Your task to perform on an android device: stop showing notifications on the lock screen Image 0: 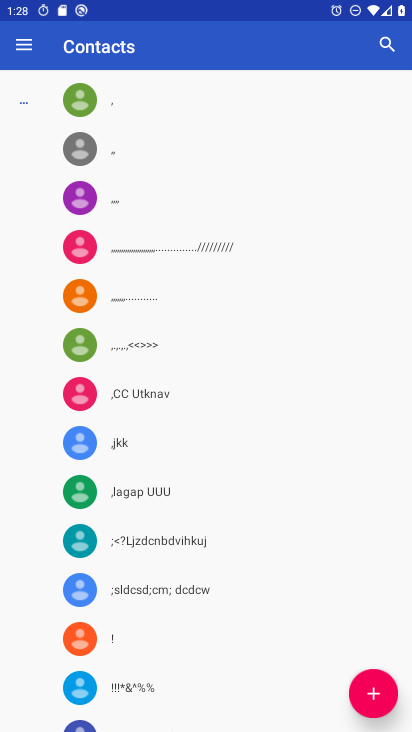
Step 0: drag from (228, 589) to (267, 202)
Your task to perform on an android device: stop showing notifications on the lock screen Image 1: 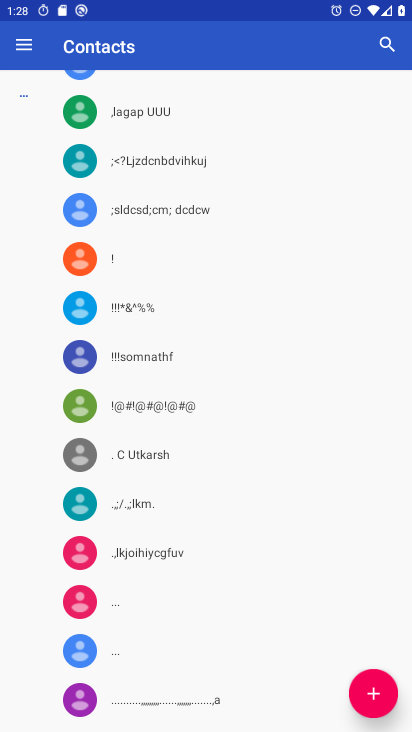
Step 1: drag from (143, 531) to (211, 311)
Your task to perform on an android device: stop showing notifications on the lock screen Image 2: 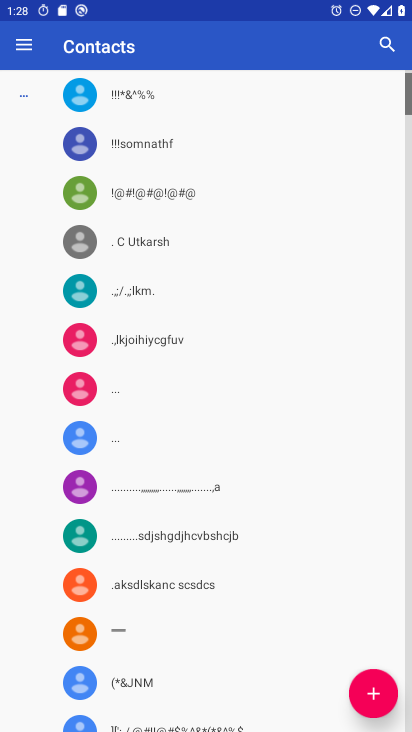
Step 2: press home button
Your task to perform on an android device: stop showing notifications on the lock screen Image 3: 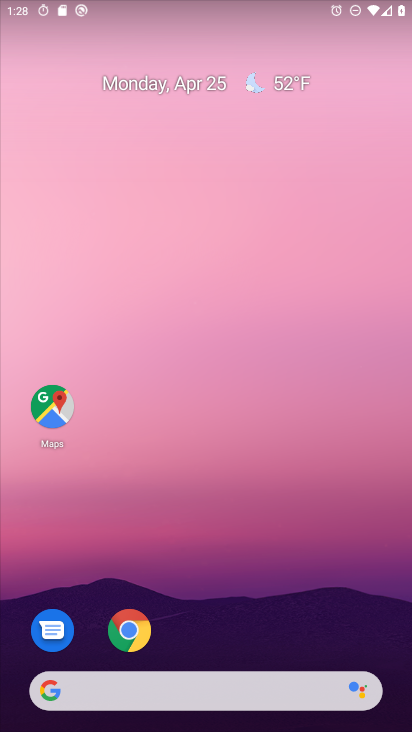
Step 3: drag from (175, 614) to (185, 145)
Your task to perform on an android device: stop showing notifications on the lock screen Image 4: 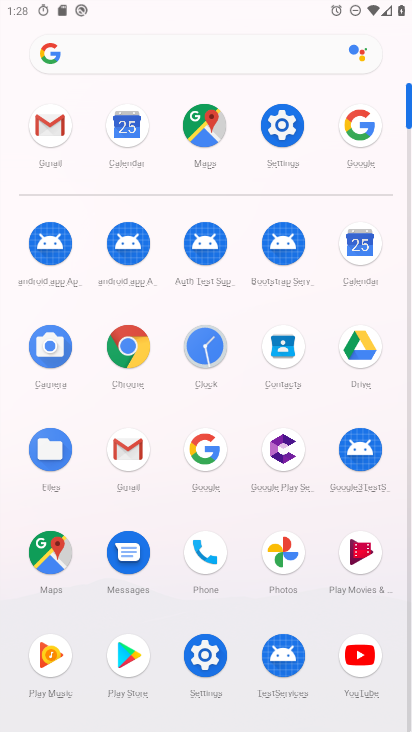
Step 4: click (283, 126)
Your task to perform on an android device: stop showing notifications on the lock screen Image 5: 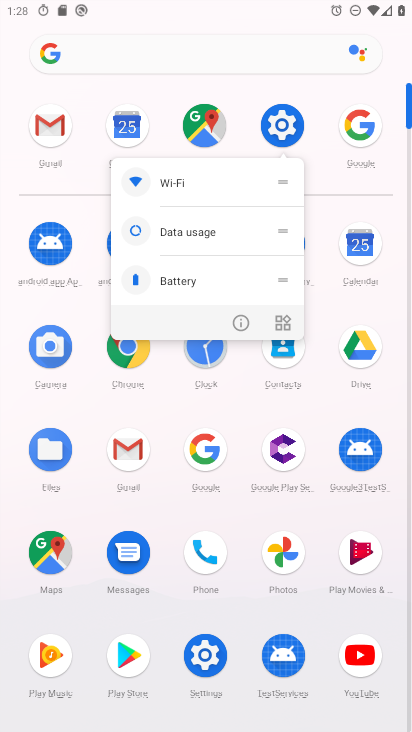
Step 5: click (233, 328)
Your task to perform on an android device: stop showing notifications on the lock screen Image 6: 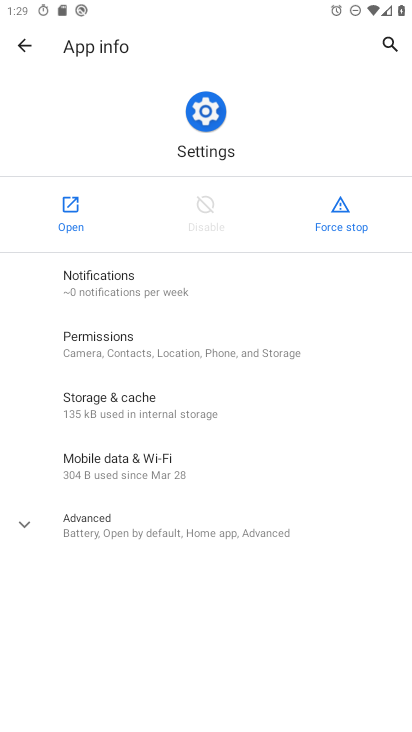
Step 6: click (63, 220)
Your task to perform on an android device: stop showing notifications on the lock screen Image 7: 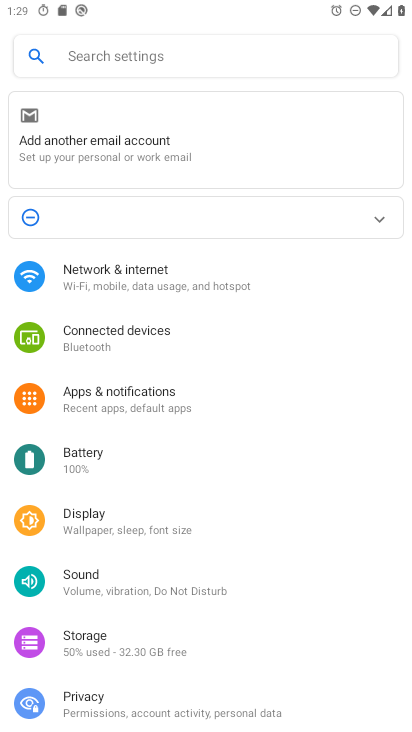
Step 7: click (158, 384)
Your task to perform on an android device: stop showing notifications on the lock screen Image 8: 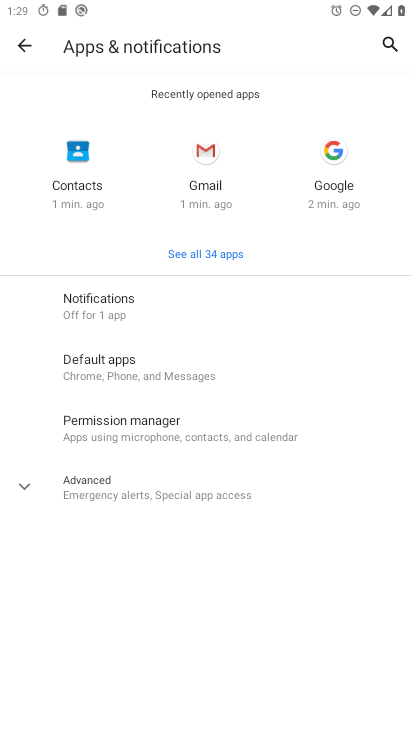
Step 8: click (198, 306)
Your task to perform on an android device: stop showing notifications on the lock screen Image 9: 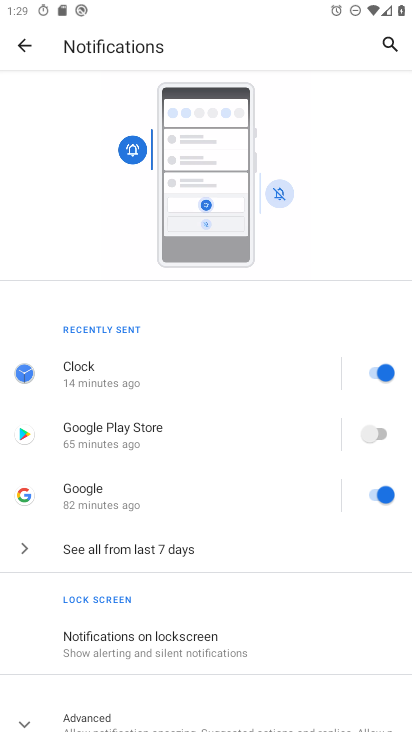
Step 9: click (205, 638)
Your task to perform on an android device: stop showing notifications on the lock screen Image 10: 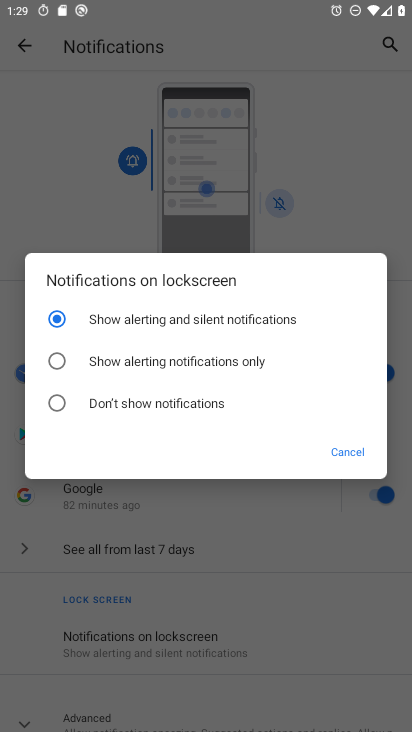
Step 10: click (203, 369)
Your task to perform on an android device: stop showing notifications on the lock screen Image 11: 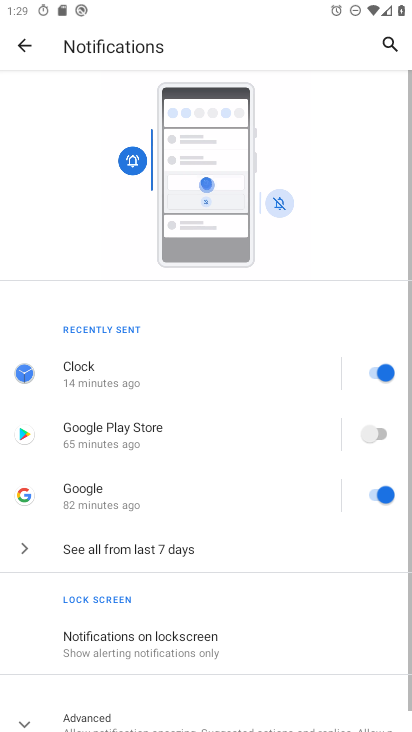
Step 11: task complete